Your task to perform on an android device: turn vacation reply on in the gmail app Image 0: 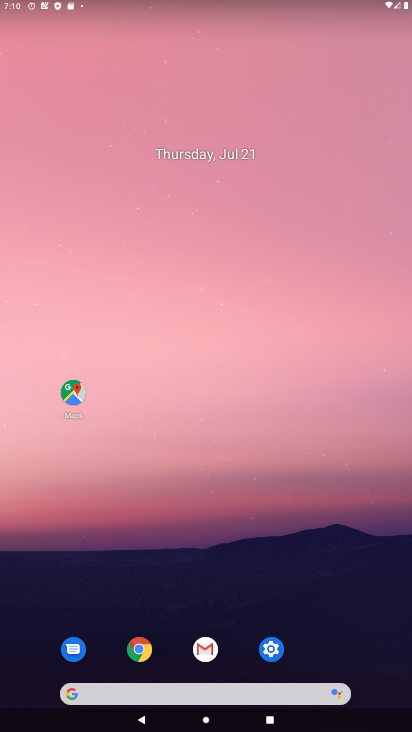
Step 0: click (199, 645)
Your task to perform on an android device: turn vacation reply on in the gmail app Image 1: 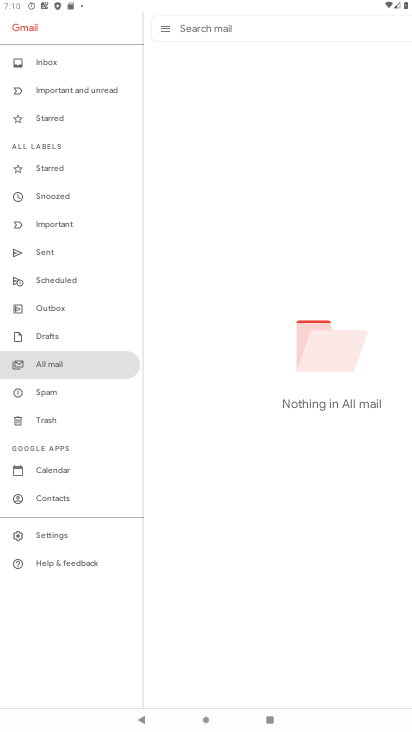
Step 1: click (33, 538)
Your task to perform on an android device: turn vacation reply on in the gmail app Image 2: 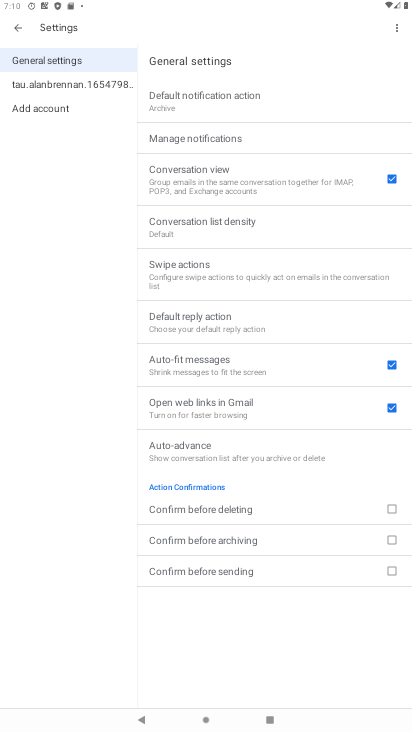
Step 2: click (64, 82)
Your task to perform on an android device: turn vacation reply on in the gmail app Image 3: 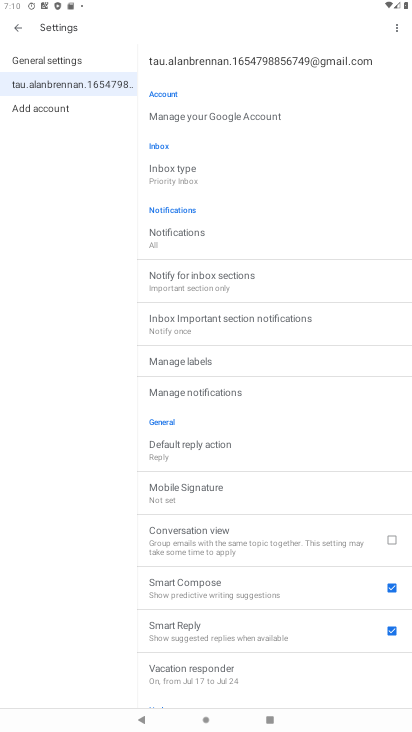
Step 3: click (244, 673)
Your task to perform on an android device: turn vacation reply on in the gmail app Image 4: 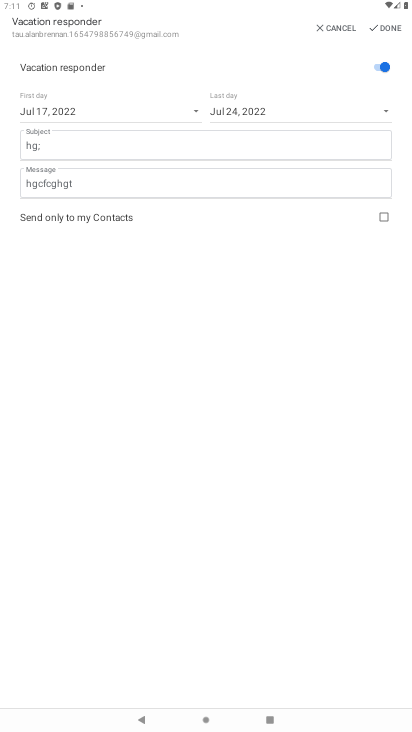
Step 4: task complete